Your task to perform on an android device: toggle notification dots Image 0: 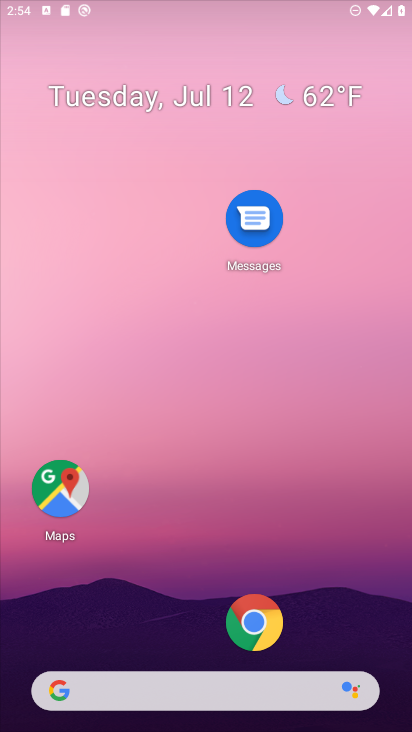
Step 0: press home button
Your task to perform on an android device: toggle notification dots Image 1: 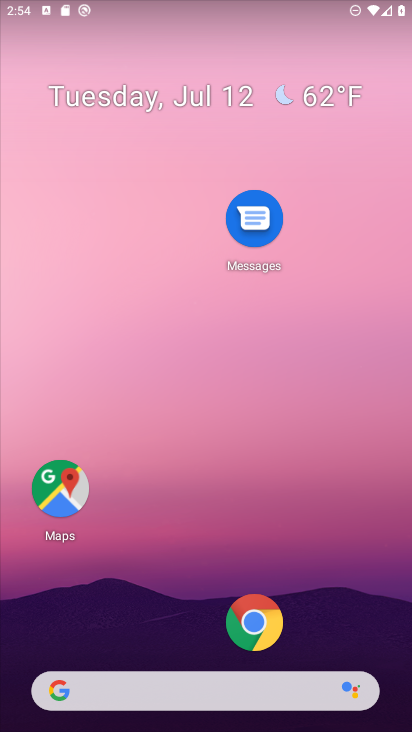
Step 1: drag from (201, 651) to (202, 75)
Your task to perform on an android device: toggle notification dots Image 2: 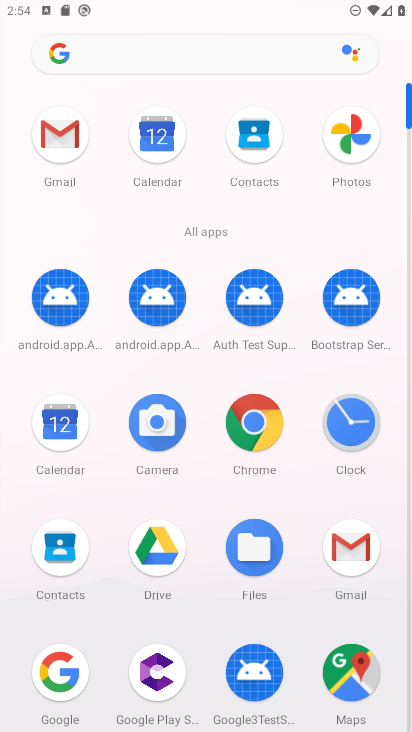
Step 2: drag from (196, 639) to (199, 170)
Your task to perform on an android device: toggle notification dots Image 3: 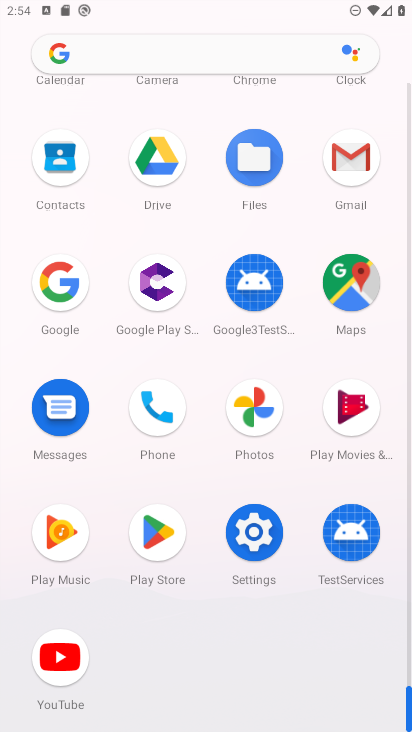
Step 3: click (256, 527)
Your task to perform on an android device: toggle notification dots Image 4: 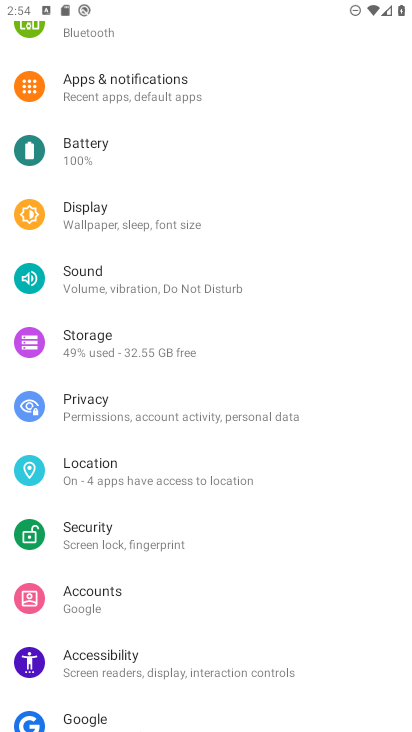
Step 4: click (128, 90)
Your task to perform on an android device: toggle notification dots Image 5: 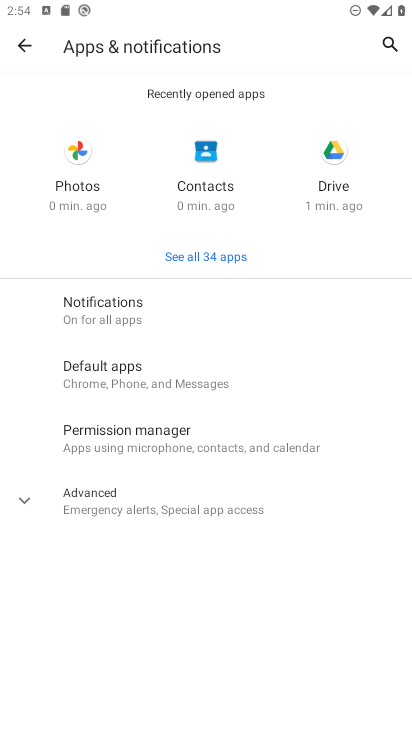
Step 5: click (167, 308)
Your task to perform on an android device: toggle notification dots Image 6: 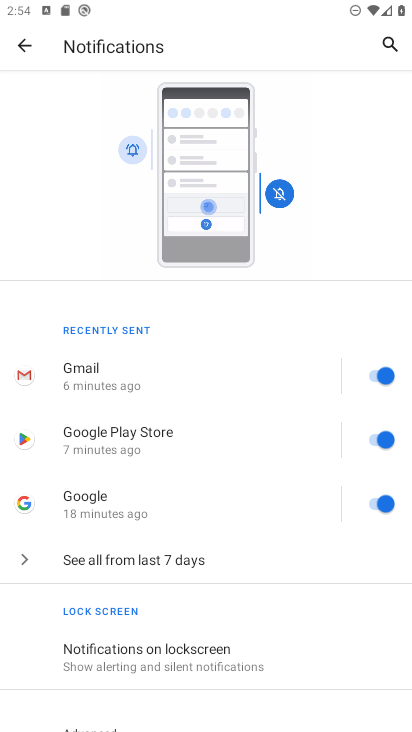
Step 6: drag from (254, 665) to (269, 179)
Your task to perform on an android device: toggle notification dots Image 7: 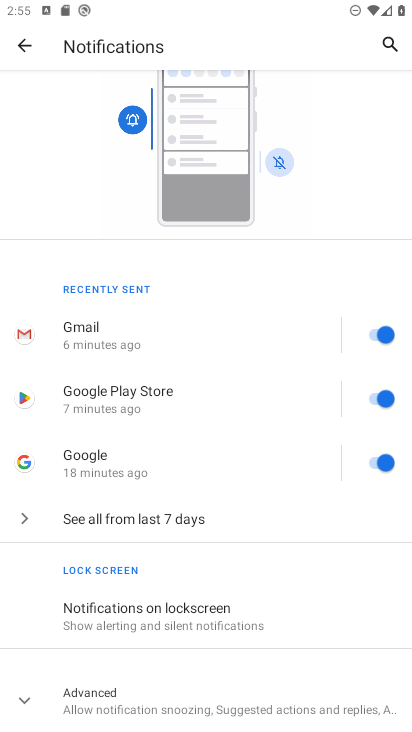
Step 7: click (28, 693)
Your task to perform on an android device: toggle notification dots Image 8: 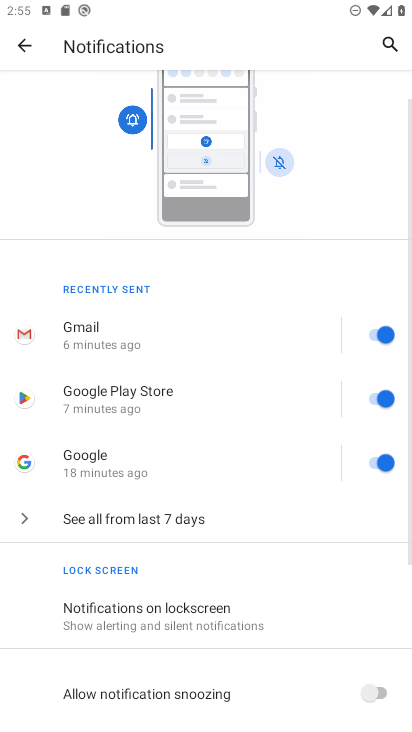
Step 8: drag from (224, 700) to (253, 248)
Your task to perform on an android device: toggle notification dots Image 9: 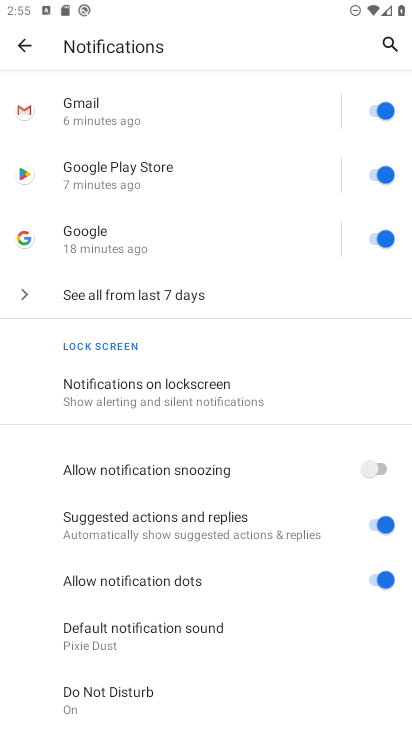
Step 9: click (380, 578)
Your task to perform on an android device: toggle notification dots Image 10: 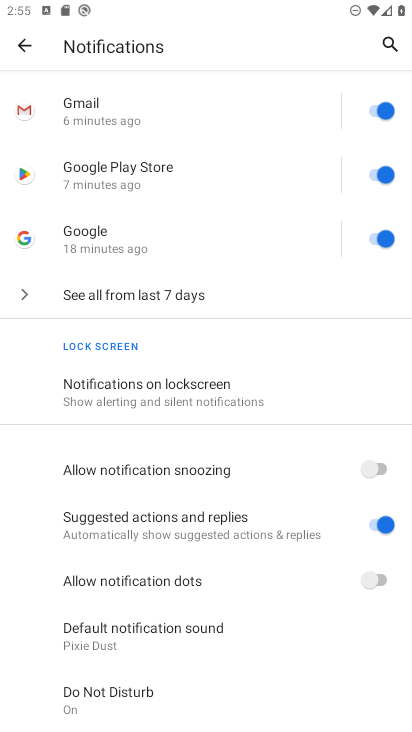
Step 10: task complete